Your task to perform on an android device: Show me the alarms in the clock app Image 0: 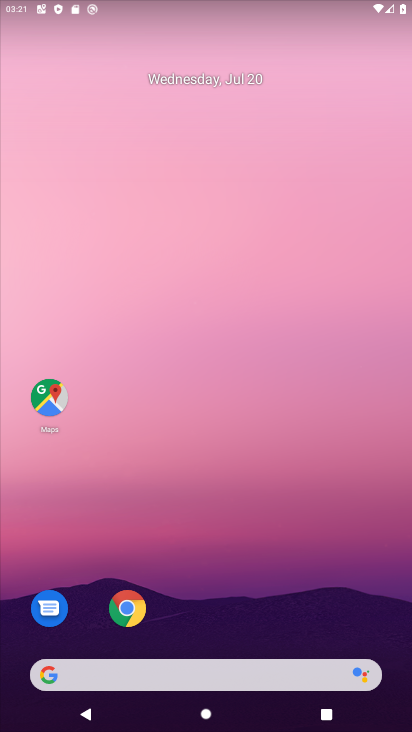
Step 0: drag from (379, 627) to (292, 89)
Your task to perform on an android device: Show me the alarms in the clock app Image 1: 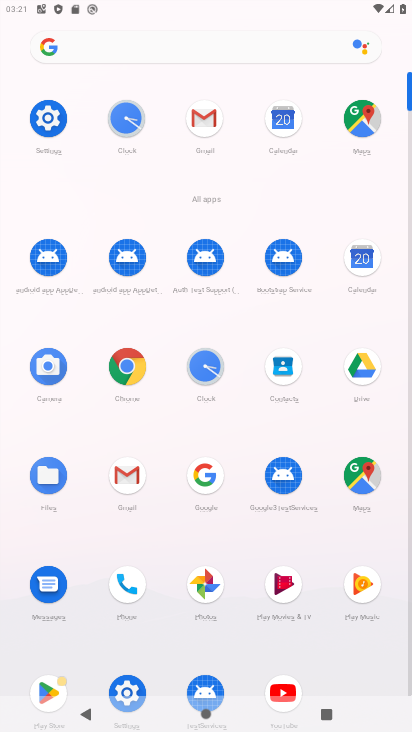
Step 1: click (176, 364)
Your task to perform on an android device: Show me the alarms in the clock app Image 2: 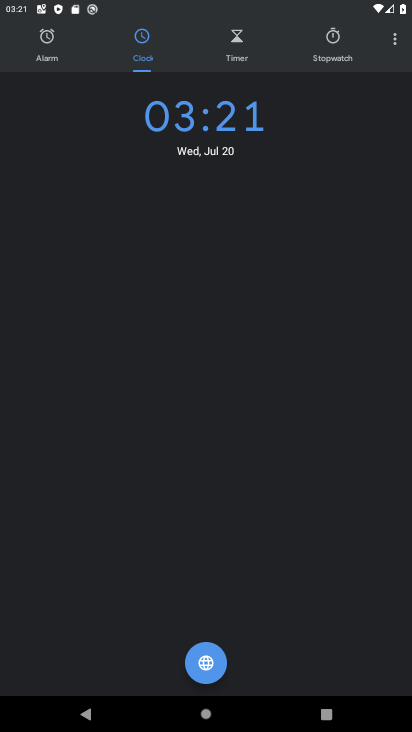
Step 2: click (51, 44)
Your task to perform on an android device: Show me the alarms in the clock app Image 3: 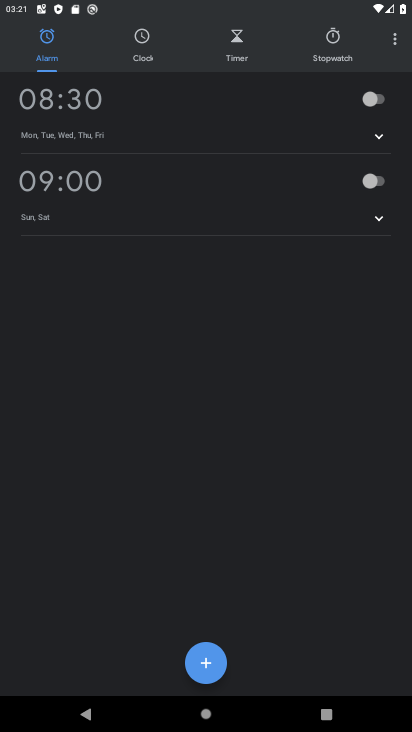
Step 3: task complete